Your task to perform on an android device: open the mobile data screen to see how much data has been used Image 0: 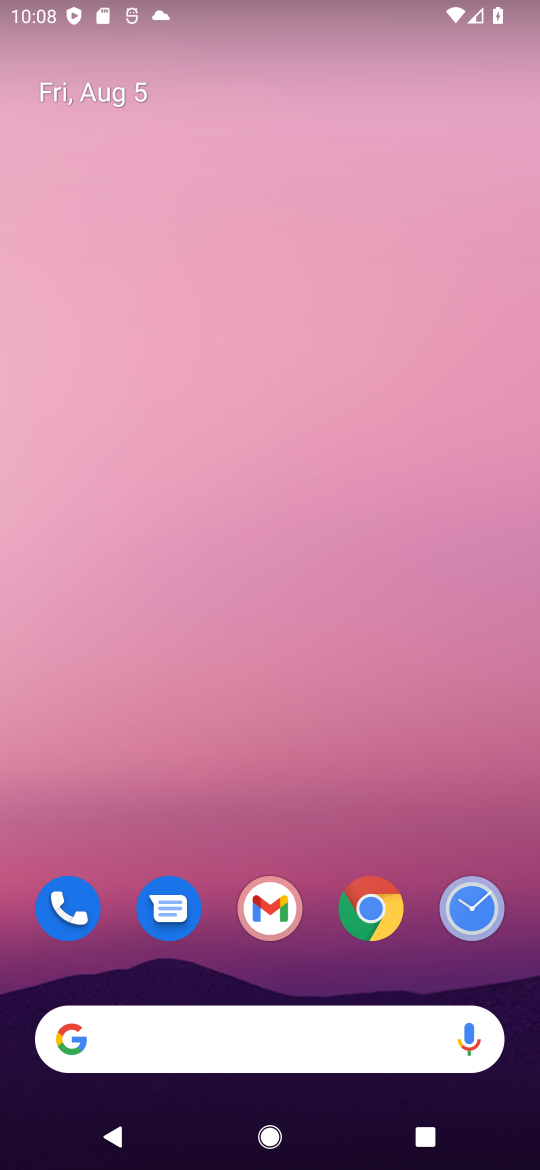
Step 0: drag from (316, 970) to (309, 97)
Your task to perform on an android device: open the mobile data screen to see how much data has been used Image 1: 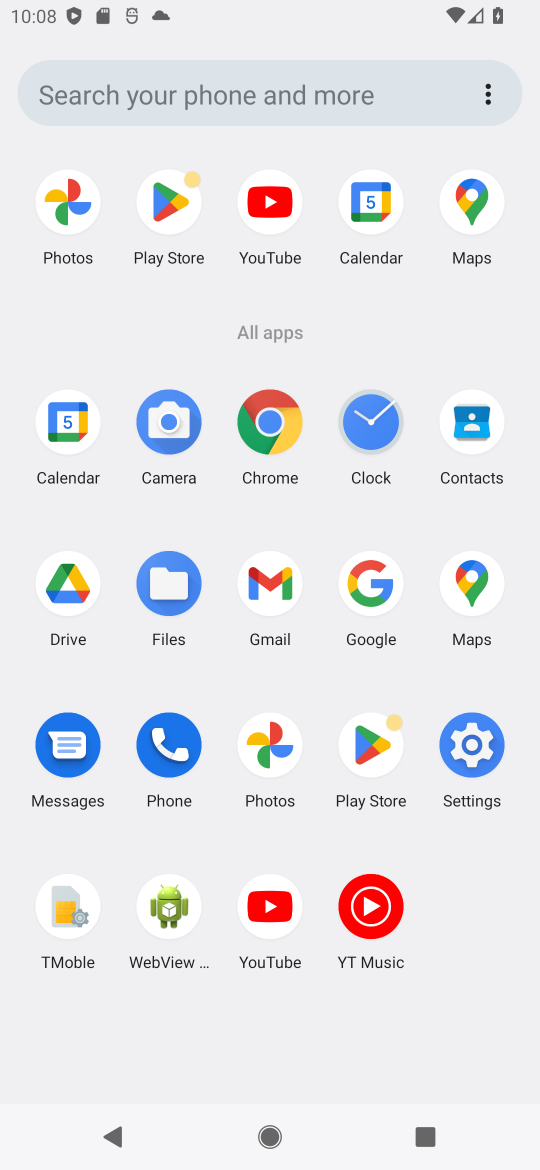
Step 1: task complete